Your task to perform on an android device: Toggle the flashlight Image 0: 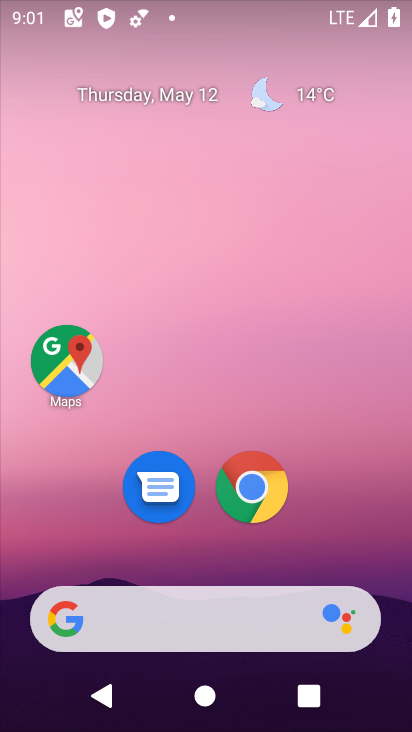
Step 0: drag from (46, 605) to (303, 179)
Your task to perform on an android device: Toggle the flashlight Image 1: 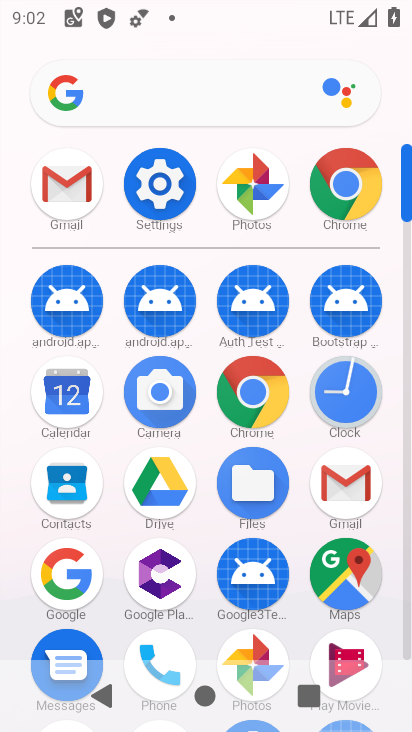
Step 1: click (152, 183)
Your task to perform on an android device: Toggle the flashlight Image 2: 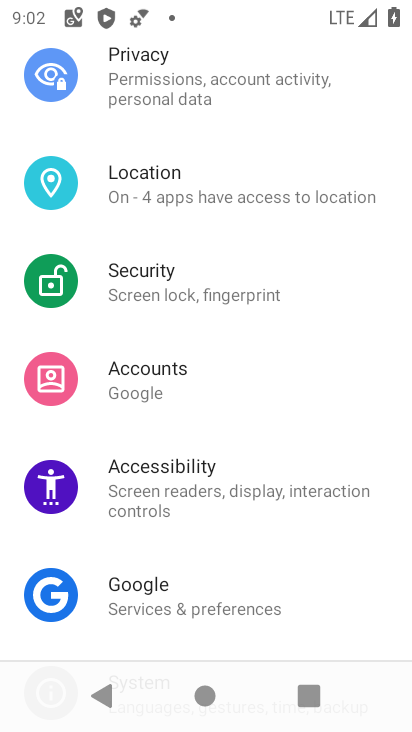
Step 2: task complete